Your task to perform on an android device: set the stopwatch Image 0: 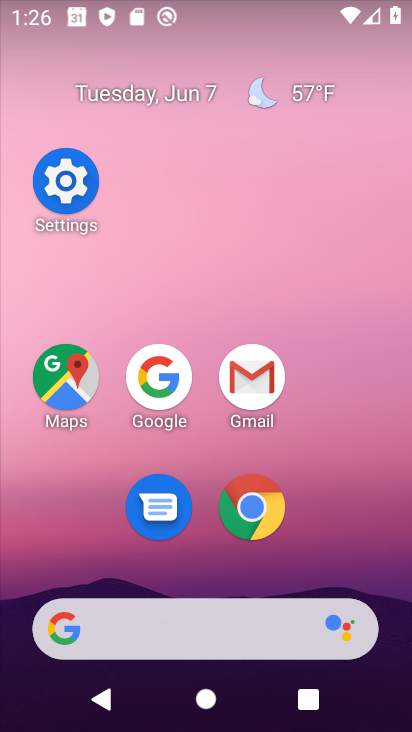
Step 0: drag from (348, 457) to (387, 111)
Your task to perform on an android device: set the stopwatch Image 1: 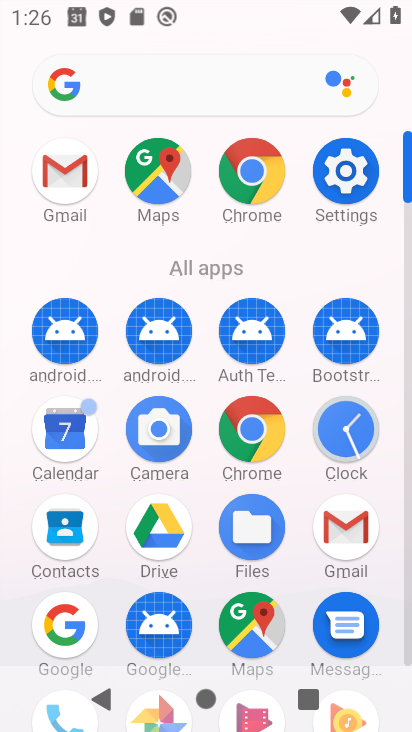
Step 1: drag from (340, 430) to (147, 194)
Your task to perform on an android device: set the stopwatch Image 2: 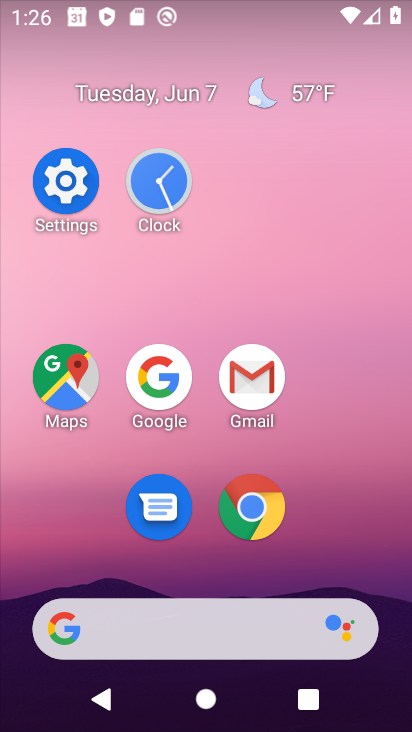
Step 2: click (157, 210)
Your task to perform on an android device: set the stopwatch Image 3: 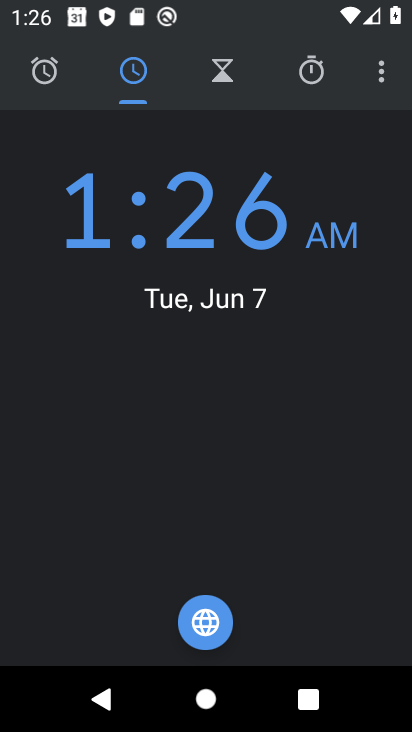
Step 3: click (314, 73)
Your task to perform on an android device: set the stopwatch Image 4: 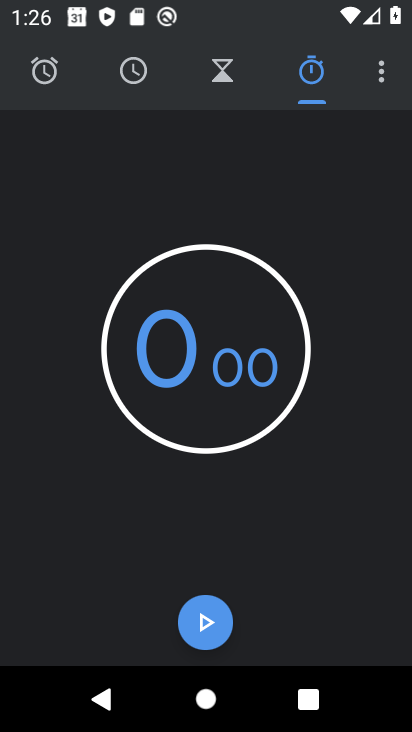
Step 4: click (207, 613)
Your task to perform on an android device: set the stopwatch Image 5: 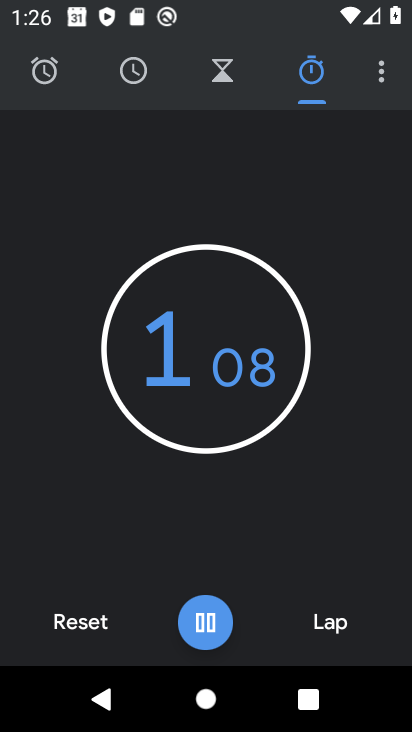
Step 5: task complete